Your task to perform on an android device: turn notification dots on Image 0: 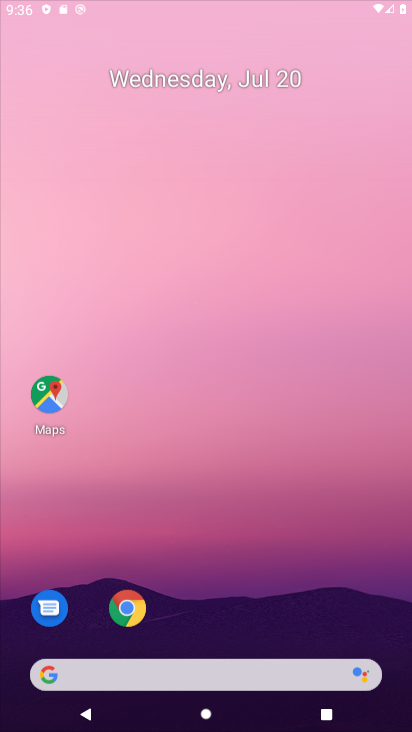
Step 0: click (301, 145)
Your task to perform on an android device: turn notification dots on Image 1: 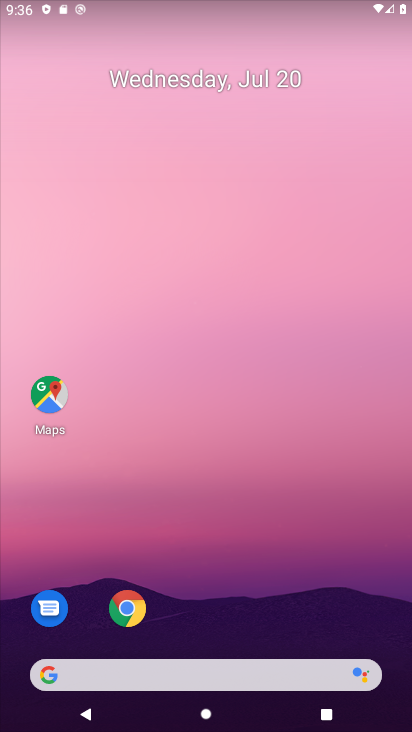
Step 1: drag from (261, 627) to (258, 171)
Your task to perform on an android device: turn notification dots on Image 2: 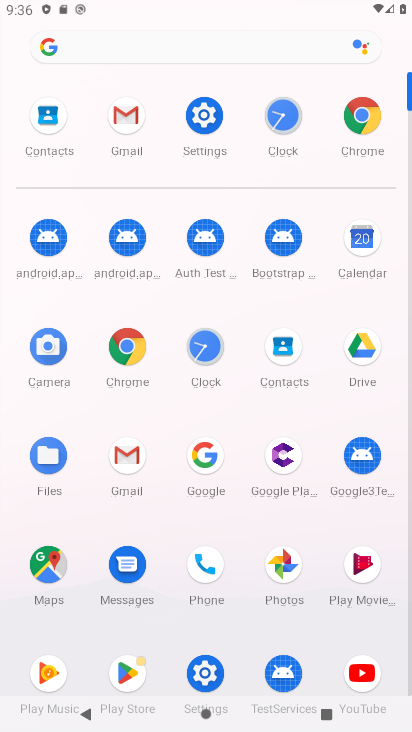
Step 2: click (200, 125)
Your task to perform on an android device: turn notification dots on Image 3: 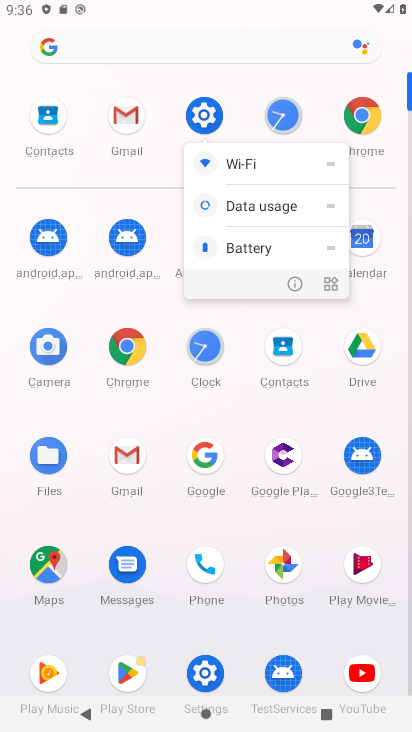
Step 3: click (208, 119)
Your task to perform on an android device: turn notification dots on Image 4: 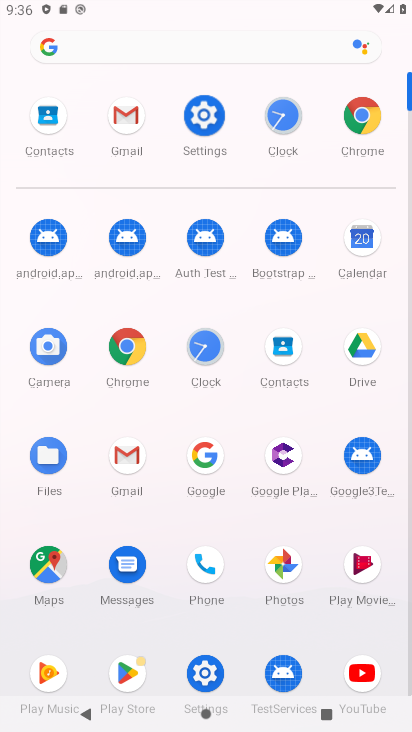
Step 4: click (200, 125)
Your task to perform on an android device: turn notification dots on Image 5: 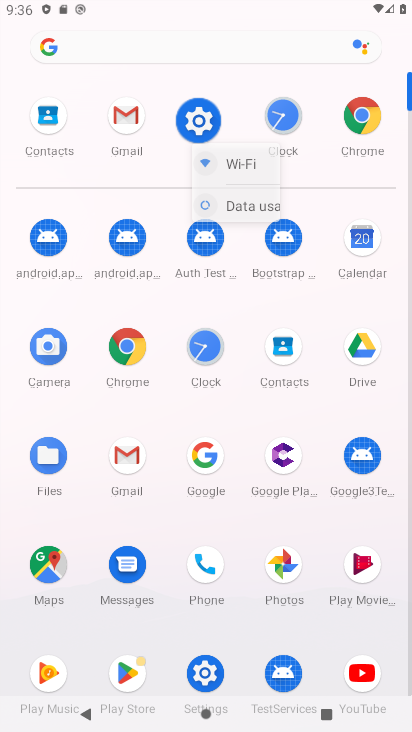
Step 5: click (200, 125)
Your task to perform on an android device: turn notification dots on Image 6: 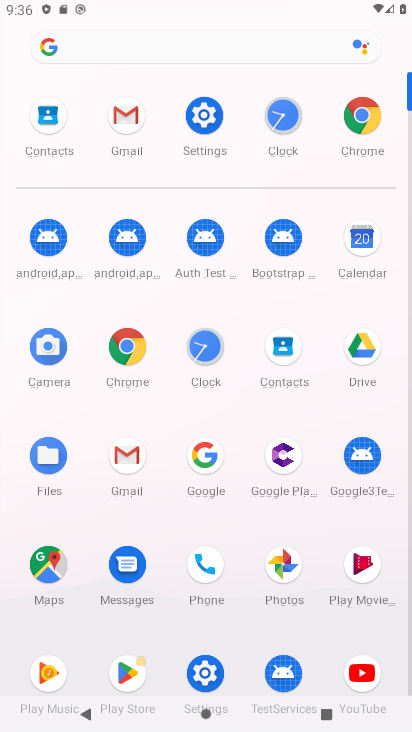
Step 6: click (205, 119)
Your task to perform on an android device: turn notification dots on Image 7: 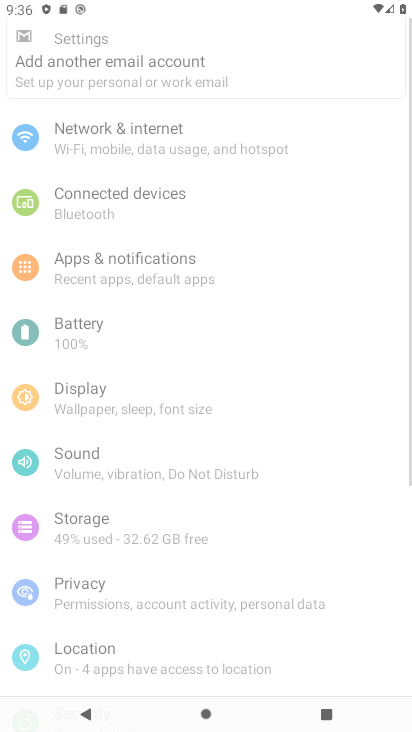
Step 7: click (207, 118)
Your task to perform on an android device: turn notification dots on Image 8: 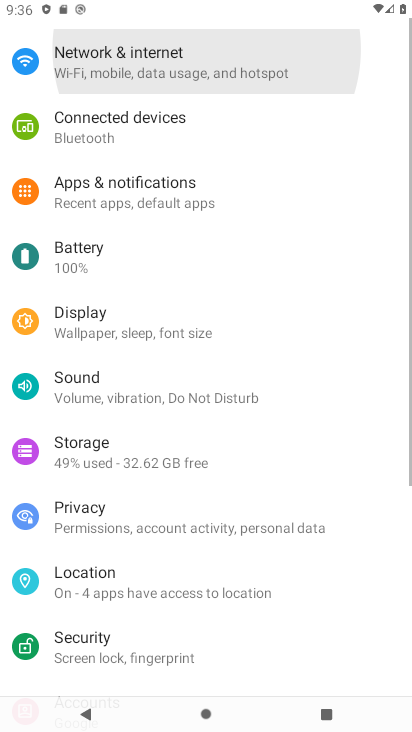
Step 8: click (207, 118)
Your task to perform on an android device: turn notification dots on Image 9: 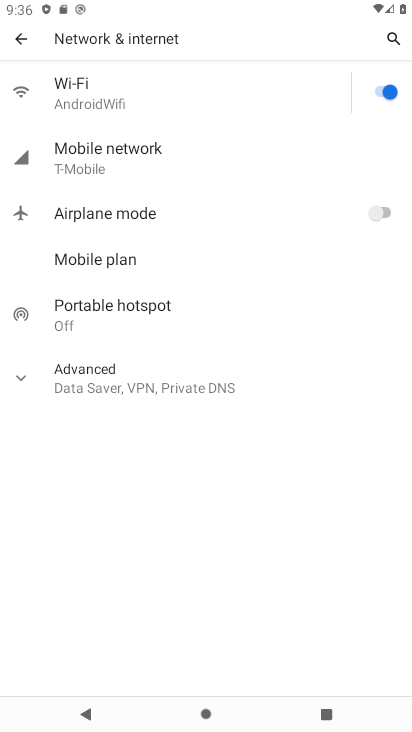
Step 9: click (13, 29)
Your task to perform on an android device: turn notification dots on Image 10: 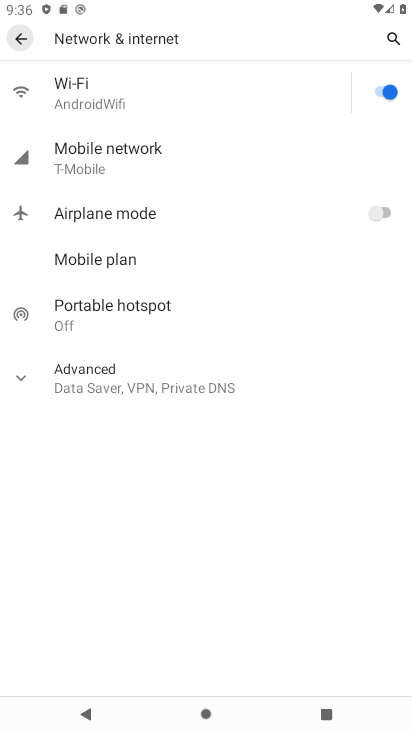
Step 10: click (13, 29)
Your task to perform on an android device: turn notification dots on Image 11: 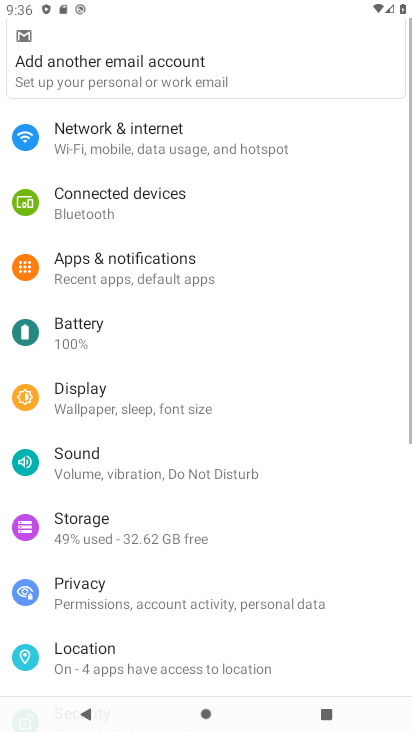
Step 11: click (128, 180)
Your task to perform on an android device: turn notification dots on Image 12: 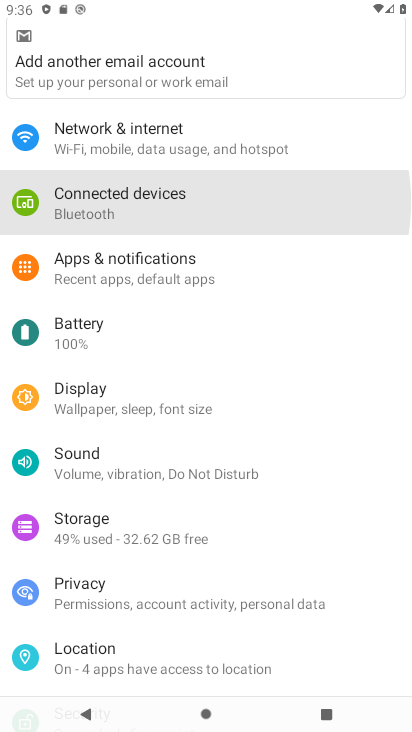
Step 12: click (126, 258)
Your task to perform on an android device: turn notification dots on Image 13: 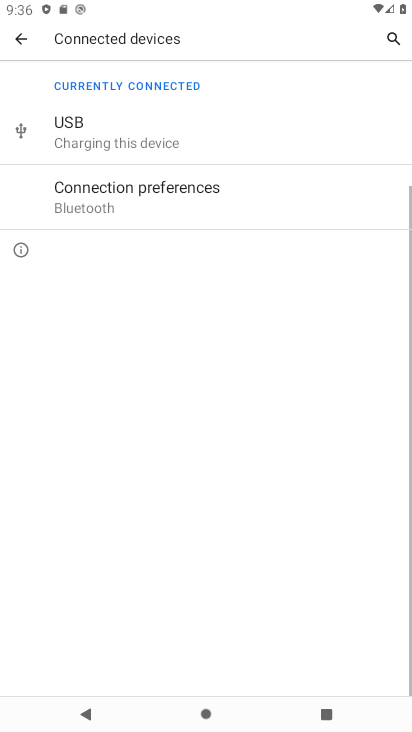
Step 13: click (154, 271)
Your task to perform on an android device: turn notification dots on Image 14: 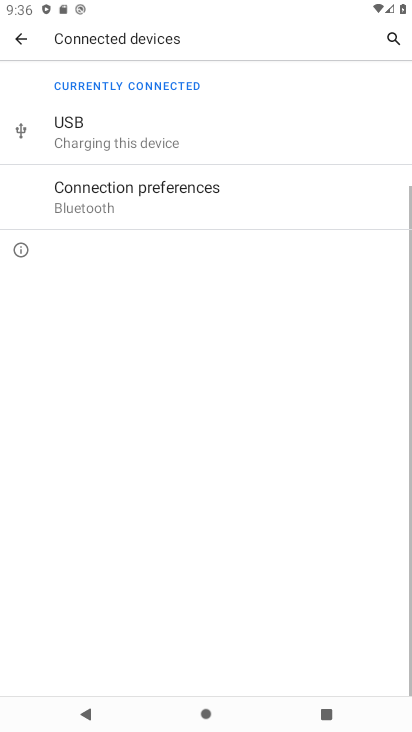
Step 14: click (175, 277)
Your task to perform on an android device: turn notification dots on Image 15: 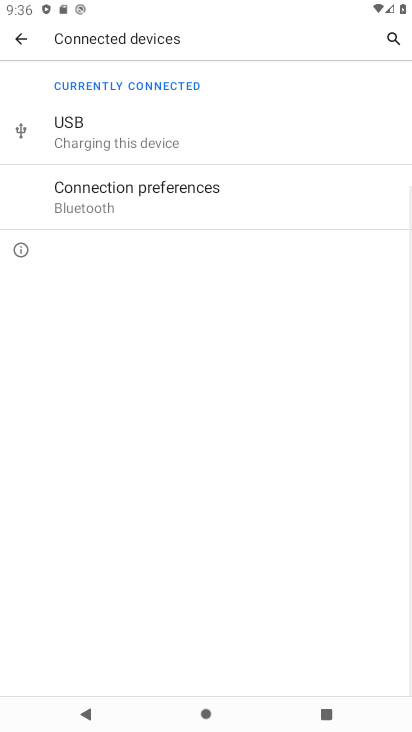
Step 15: click (23, 40)
Your task to perform on an android device: turn notification dots on Image 16: 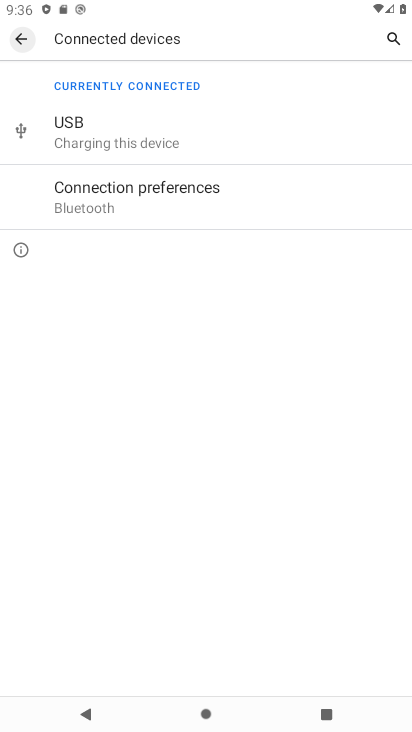
Step 16: click (23, 40)
Your task to perform on an android device: turn notification dots on Image 17: 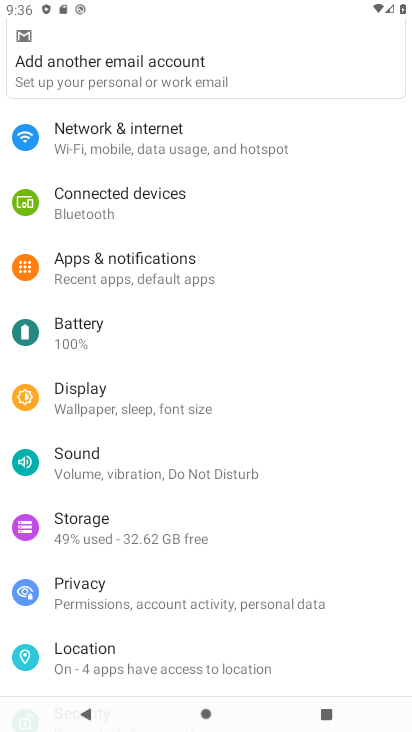
Step 17: click (148, 256)
Your task to perform on an android device: turn notification dots on Image 18: 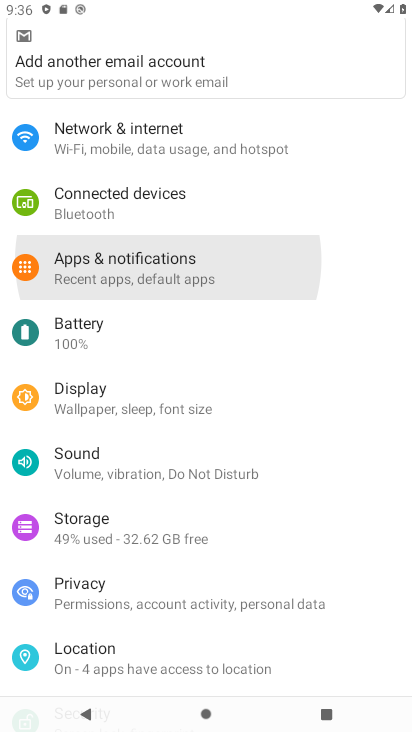
Step 18: click (149, 255)
Your task to perform on an android device: turn notification dots on Image 19: 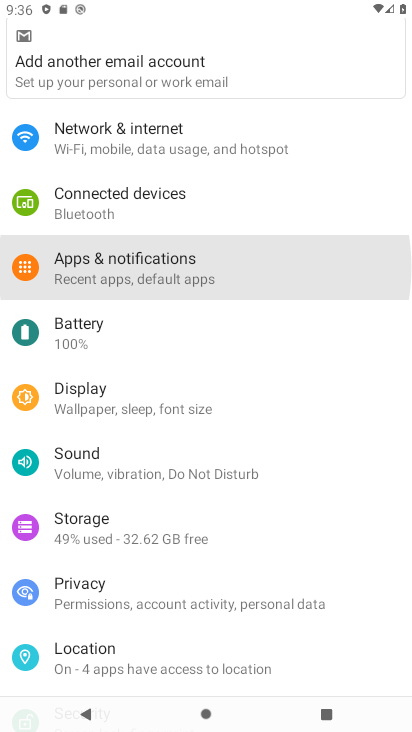
Step 19: click (152, 254)
Your task to perform on an android device: turn notification dots on Image 20: 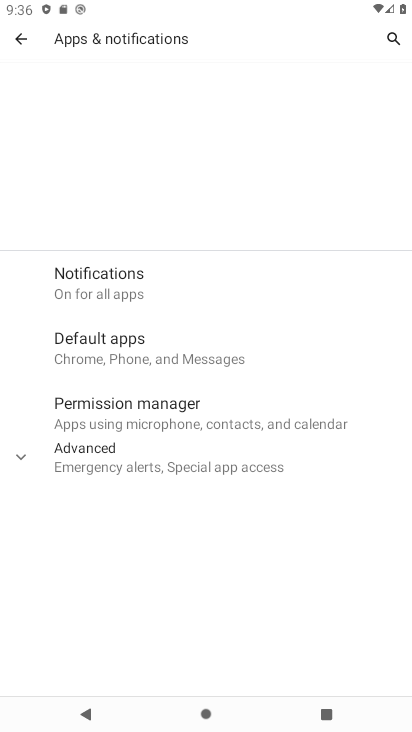
Step 20: click (144, 265)
Your task to perform on an android device: turn notification dots on Image 21: 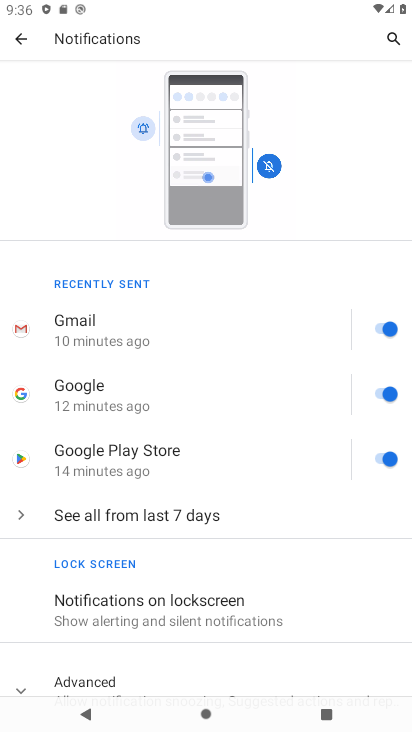
Step 21: drag from (119, 467) to (119, 186)
Your task to perform on an android device: turn notification dots on Image 22: 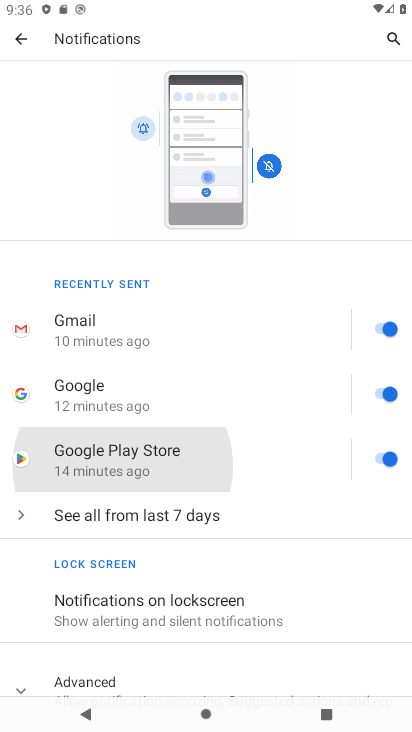
Step 22: drag from (148, 487) to (169, 235)
Your task to perform on an android device: turn notification dots on Image 23: 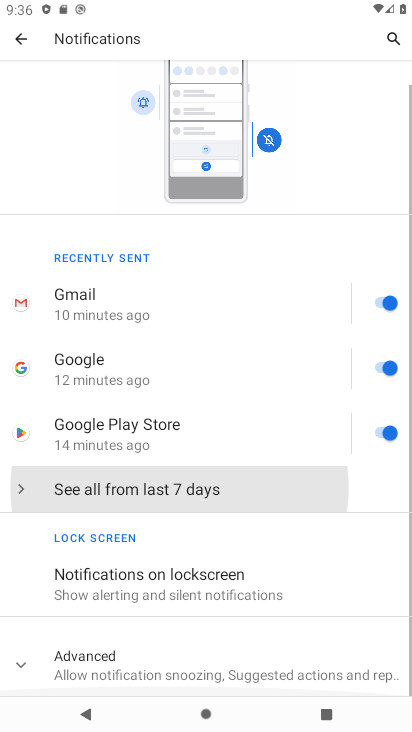
Step 23: drag from (177, 426) to (175, 267)
Your task to perform on an android device: turn notification dots on Image 24: 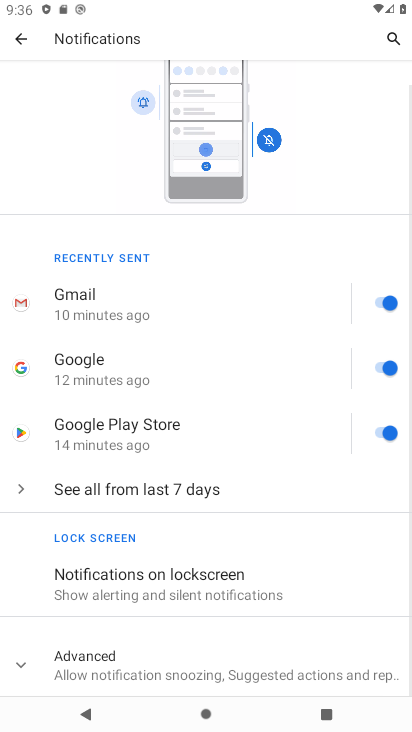
Step 24: drag from (199, 466) to (171, 311)
Your task to perform on an android device: turn notification dots on Image 25: 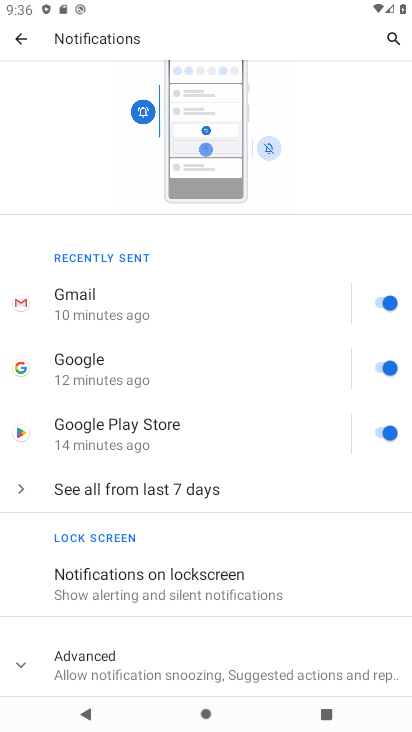
Step 25: click (112, 667)
Your task to perform on an android device: turn notification dots on Image 26: 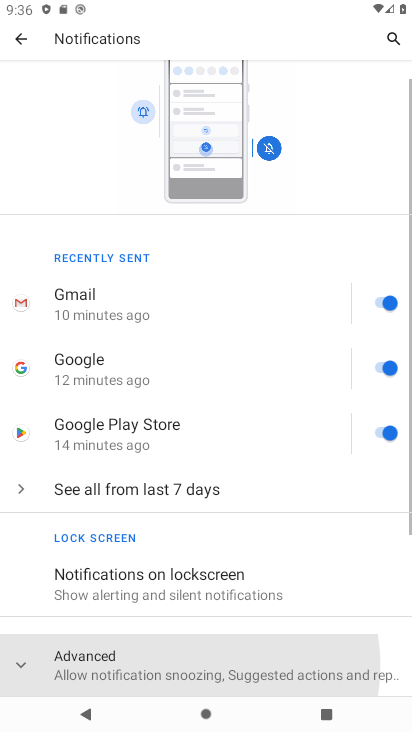
Step 26: click (112, 665)
Your task to perform on an android device: turn notification dots on Image 27: 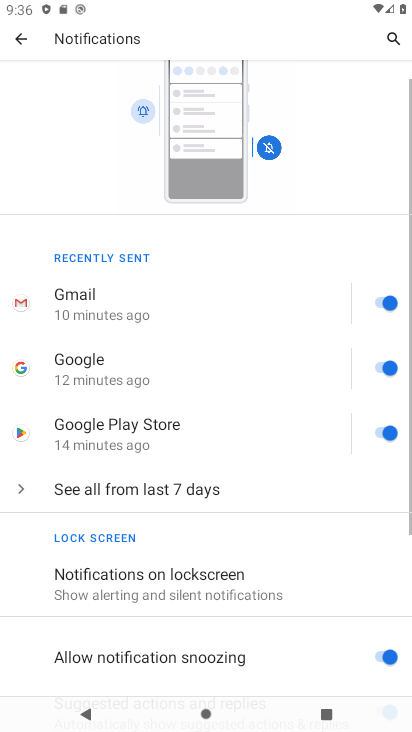
Step 27: task complete